Your task to perform on an android device: turn off improve location accuracy Image 0: 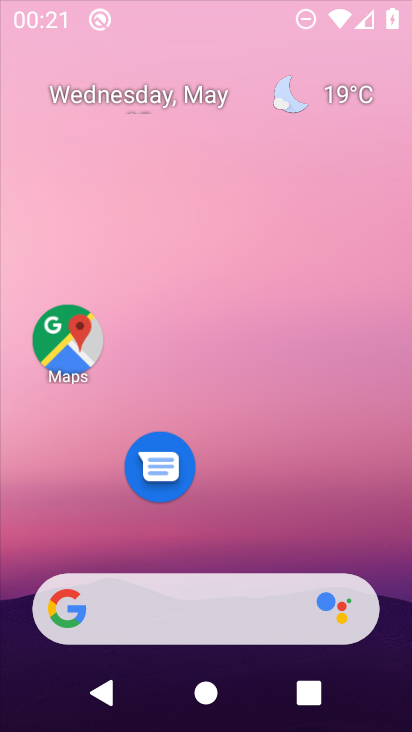
Step 0: click (234, 122)
Your task to perform on an android device: turn off improve location accuracy Image 1: 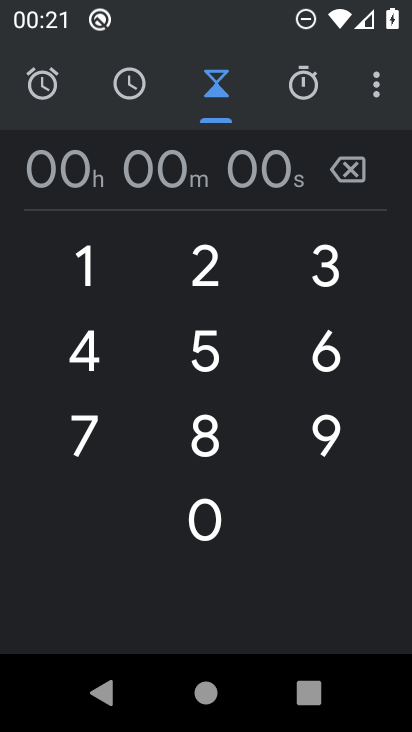
Step 1: press home button
Your task to perform on an android device: turn off improve location accuracy Image 2: 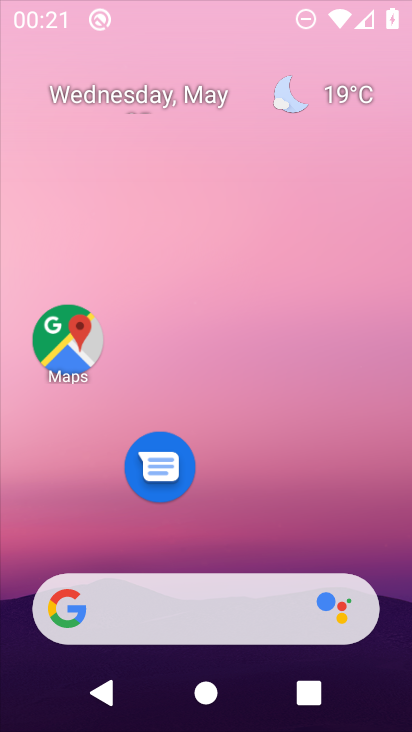
Step 2: drag from (231, 604) to (268, 225)
Your task to perform on an android device: turn off improve location accuracy Image 3: 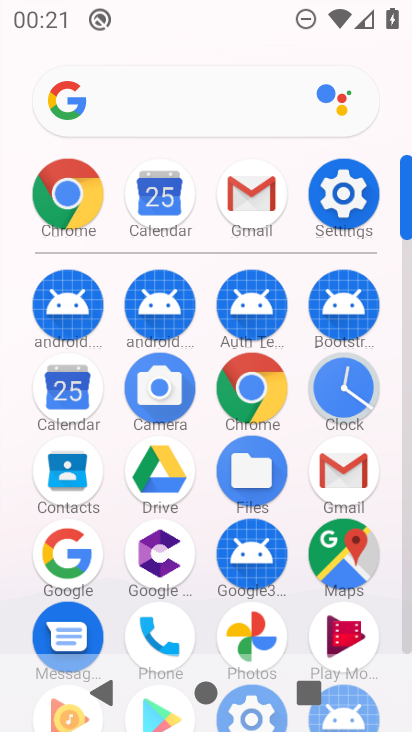
Step 3: click (340, 182)
Your task to perform on an android device: turn off improve location accuracy Image 4: 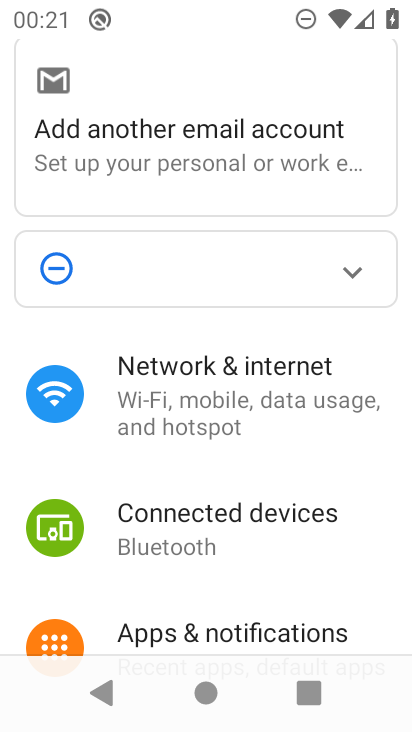
Step 4: drag from (208, 564) to (273, 58)
Your task to perform on an android device: turn off improve location accuracy Image 5: 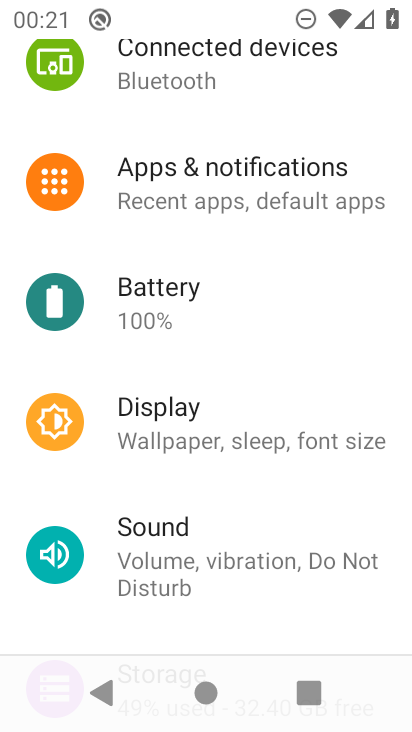
Step 5: drag from (227, 410) to (182, 162)
Your task to perform on an android device: turn off improve location accuracy Image 6: 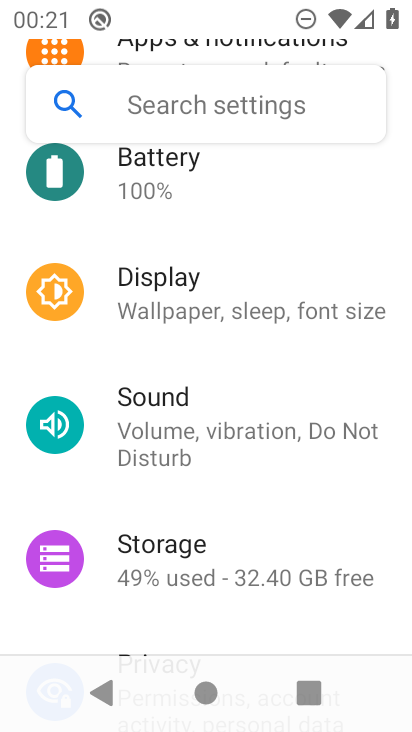
Step 6: drag from (195, 381) to (282, 56)
Your task to perform on an android device: turn off improve location accuracy Image 7: 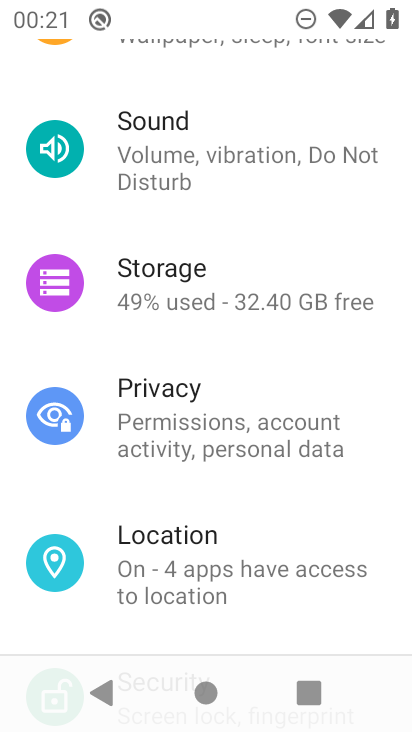
Step 7: click (197, 537)
Your task to perform on an android device: turn off improve location accuracy Image 8: 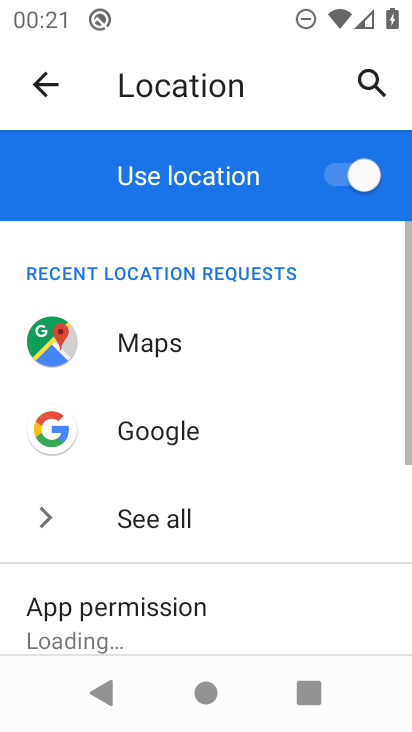
Step 8: drag from (219, 579) to (309, 38)
Your task to perform on an android device: turn off improve location accuracy Image 9: 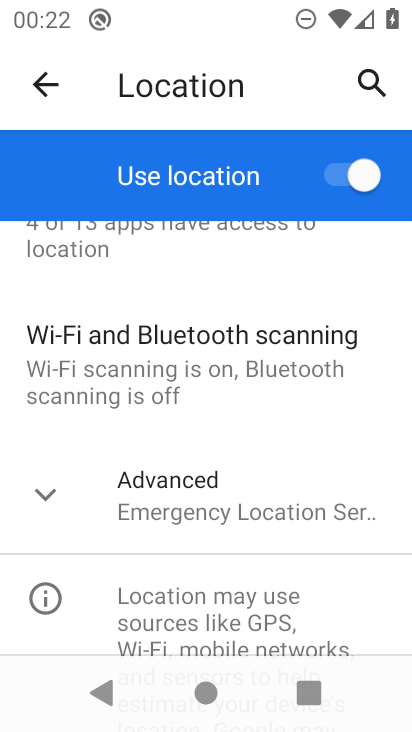
Step 9: drag from (216, 529) to (233, 275)
Your task to perform on an android device: turn off improve location accuracy Image 10: 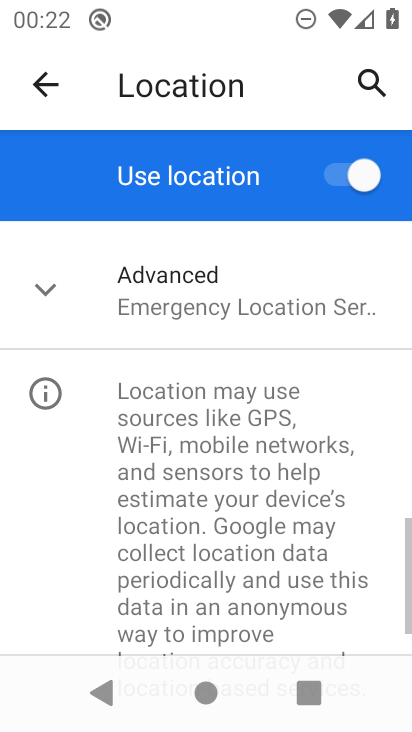
Step 10: click (146, 497)
Your task to perform on an android device: turn off improve location accuracy Image 11: 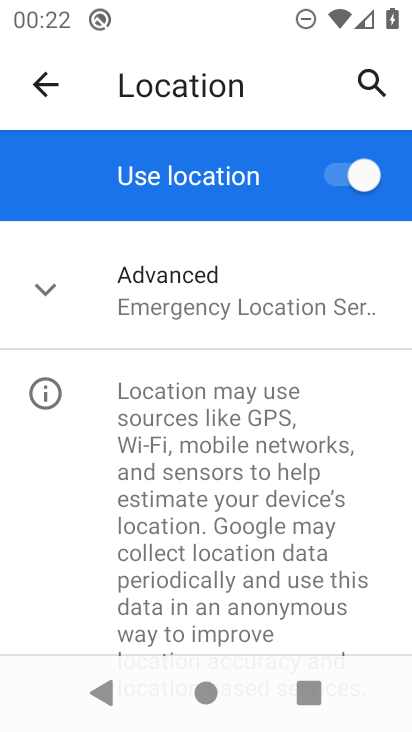
Step 11: click (159, 332)
Your task to perform on an android device: turn off improve location accuracy Image 12: 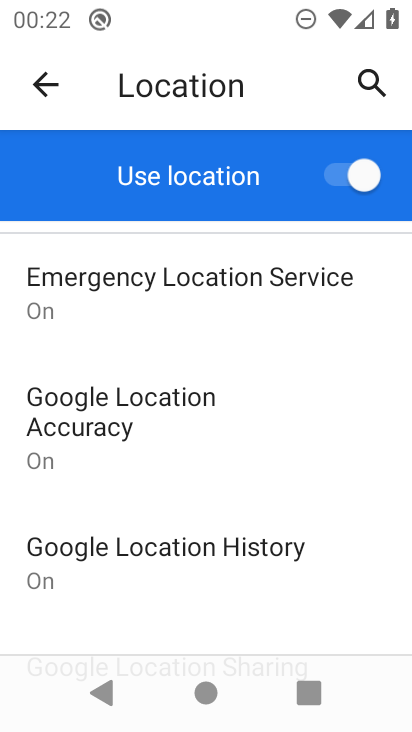
Step 12: click (182, 419)
Your task to perform on an android device: turn off improve location accuracy Image 13: 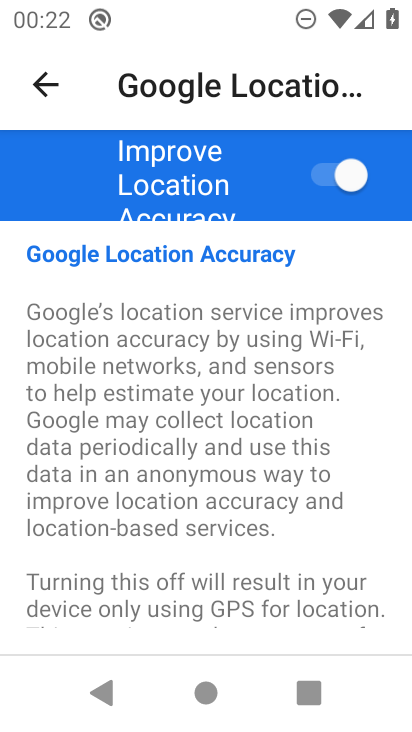
Step 13: drag from (191, 477) to (228, 195)
Your task to perform on an android device: turn off improve location accuracy Image 14: 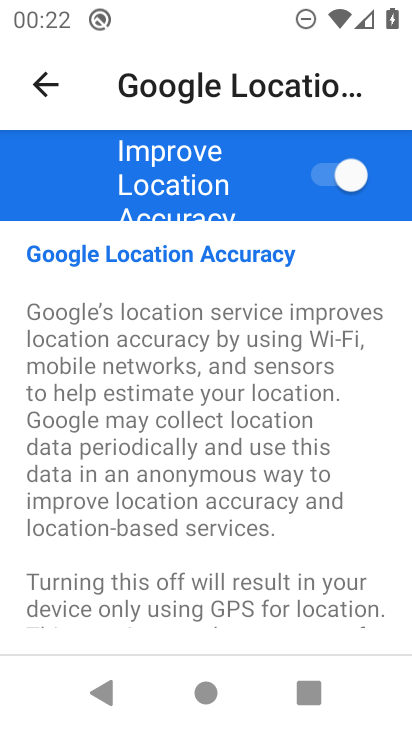
Step 14: click (328, 168)
Your task to perform on an android device: turn off improve location accuracy Image 15: 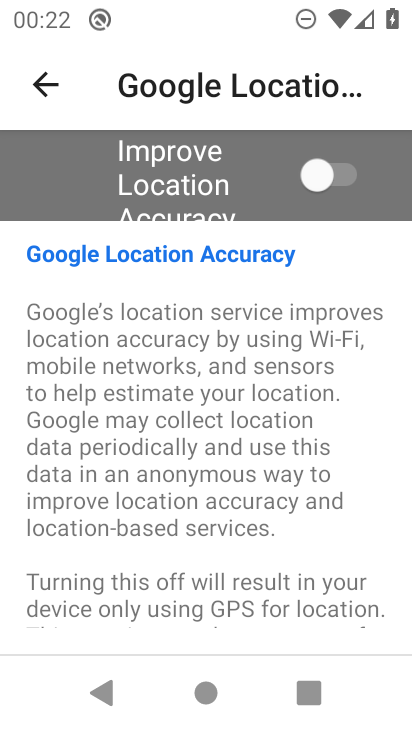
Step 15: task complete